Your task to perform on an android device: change the clock display to digital Image 0: 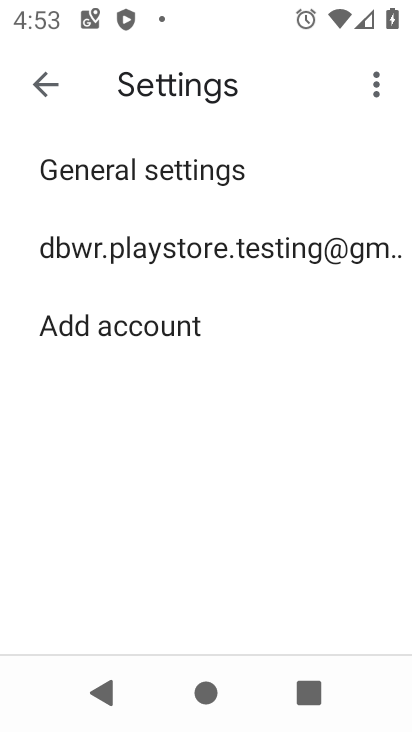
Step 0: press home button
Your task to perform on an android device: change the clock display to digital Image 1: 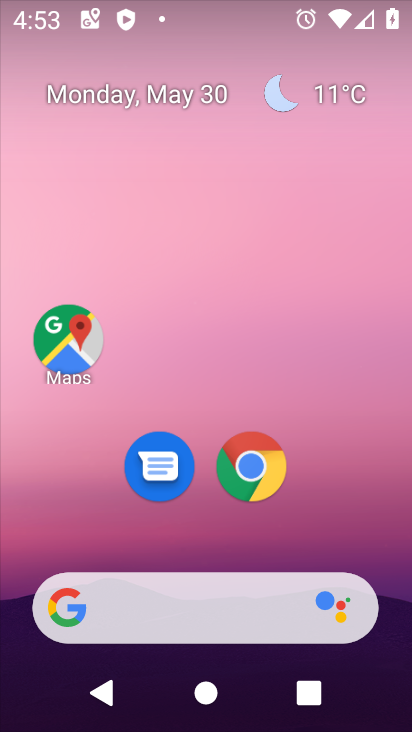
Step 1: drag from (345, 541) to (257, 129)
Your task to perform on an android device: change the clock display to digital Image 2: 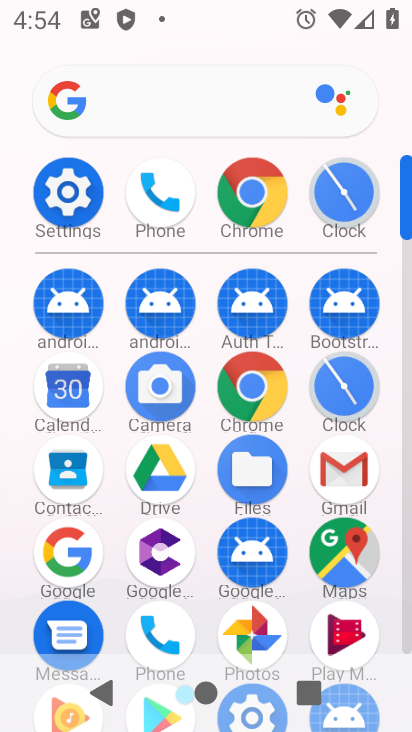
Step 2: click (353, 390)
Your task to perform on an android device: change the clock display to digital Image 3: 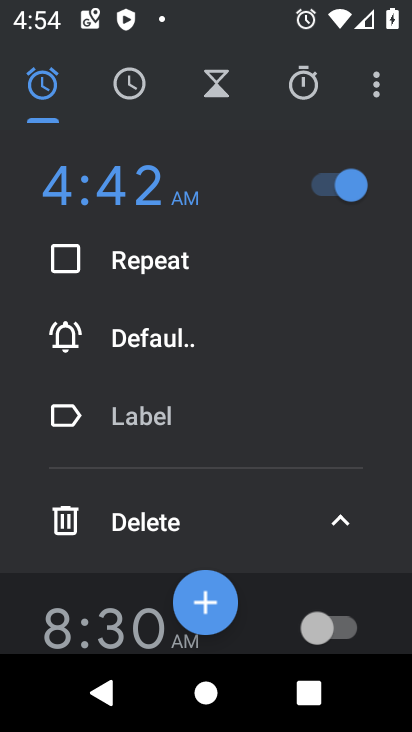
Step 3: click (376, 85)
Your task to perform on an android device: change the clock display to digital Image 4: 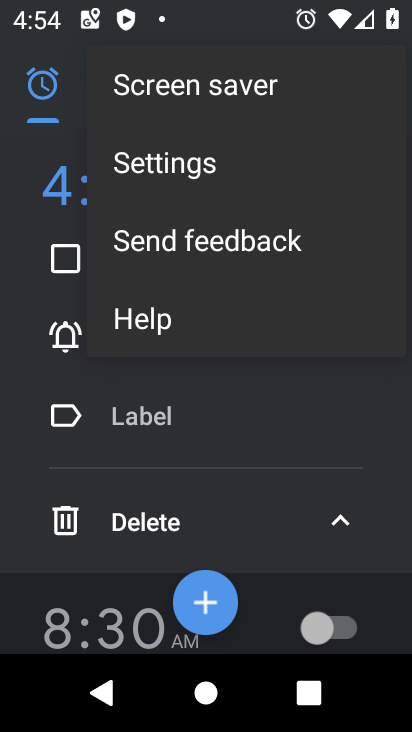
Step 4: click (205, 168)
Your task to perform on an android device: change the clock display to digital Image 5: 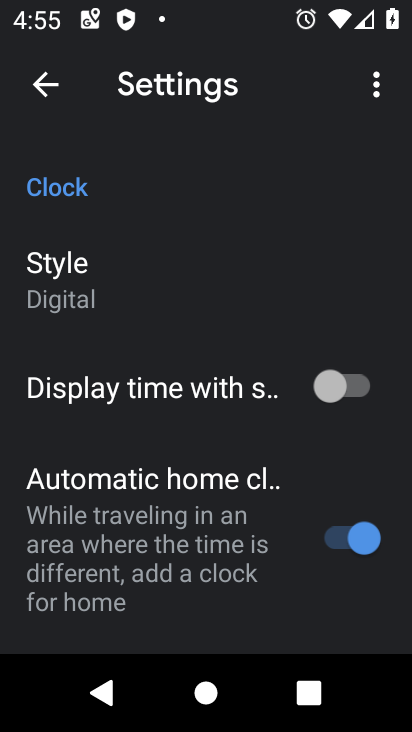
Step 5: click (80, 274)
Your task to perform on an android device: change the clock display to digital Image 6: 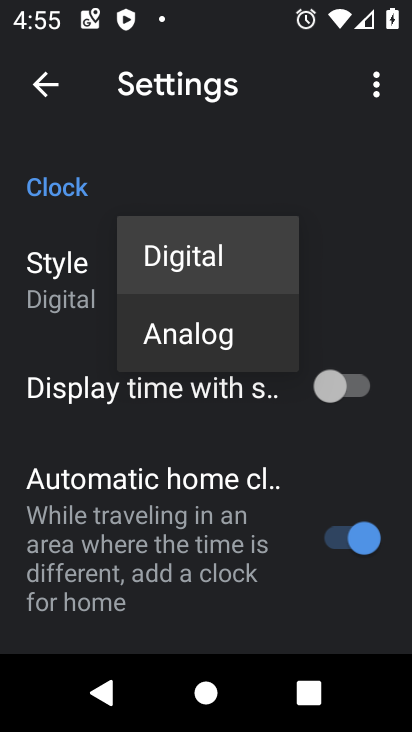
Step 6: task complete